Your task to perform on an android device: Search for custom wallets on Etsy. Image 0: 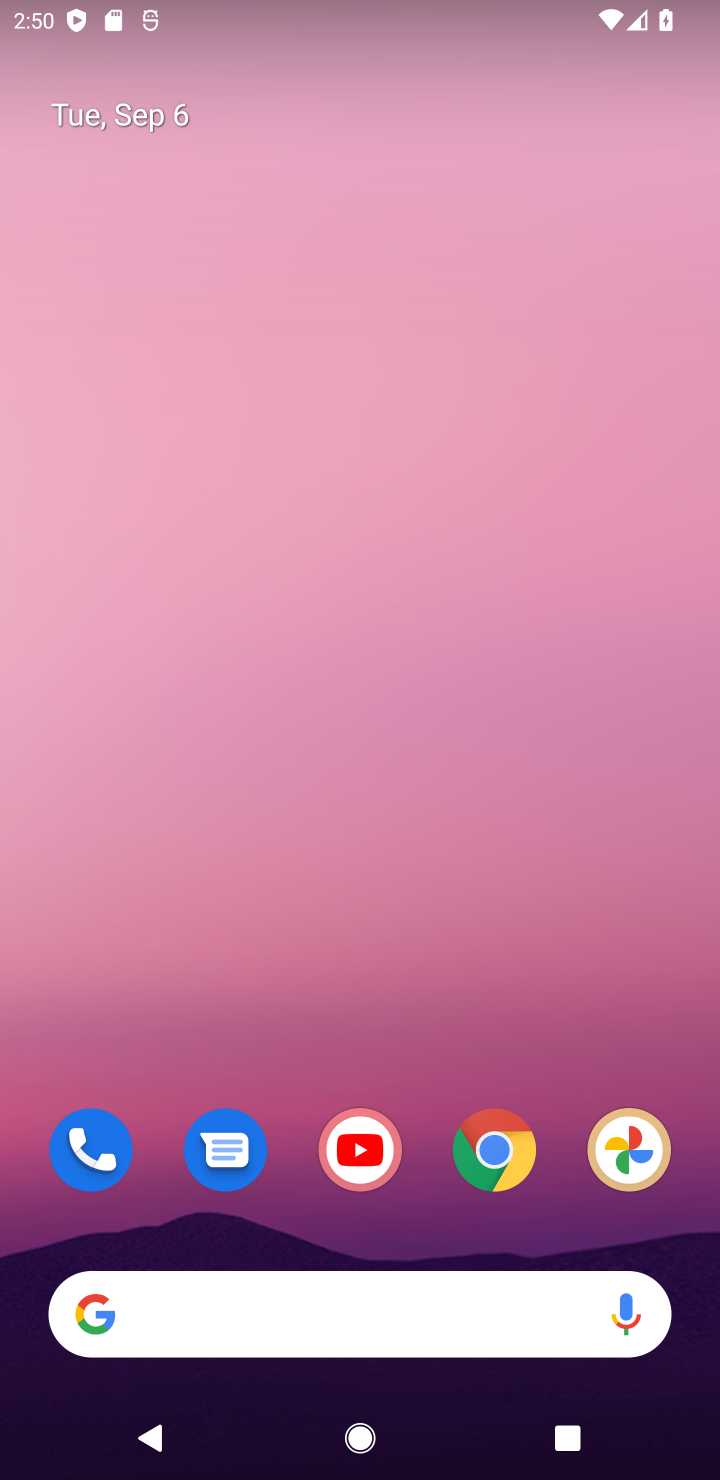
Step 0: click (497, 1156)
Your task to perform on an android device: Search for custom wallets on Etsy. Image 1: 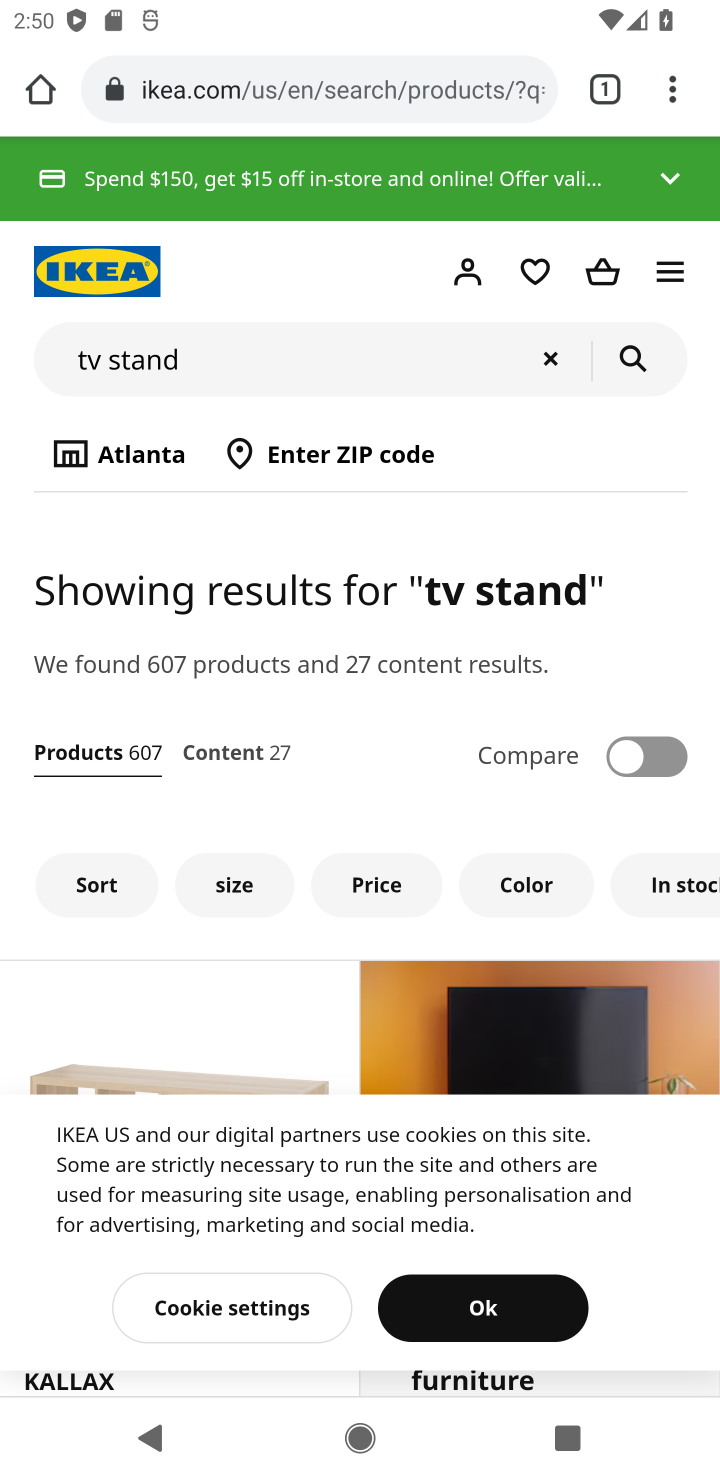
Step 1: click (255, 93)
Your task to perform on an android device: Search for custom wallets on Etsy. Image 2: 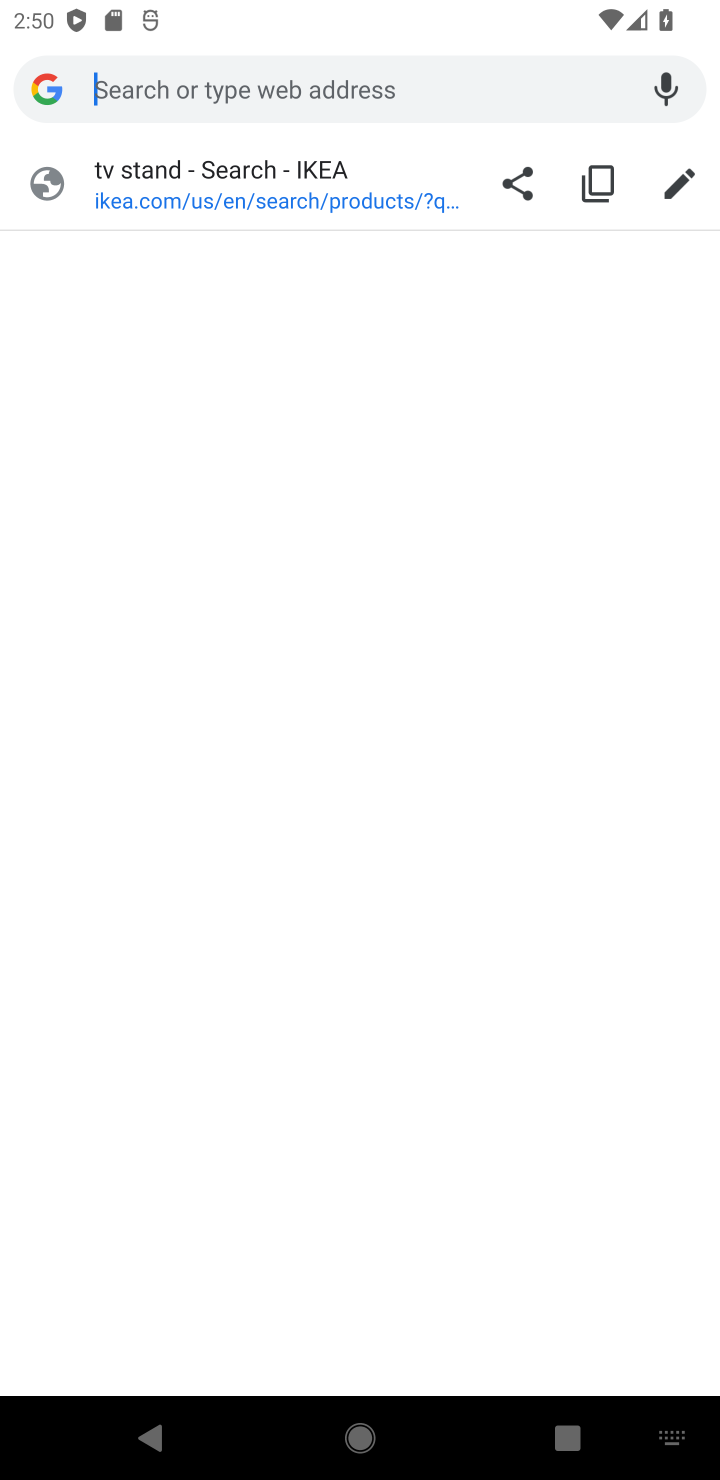
Step 2: type "etsy"
Your task to perform on an android device: Search for custom wallets on Etsy. Image 3: 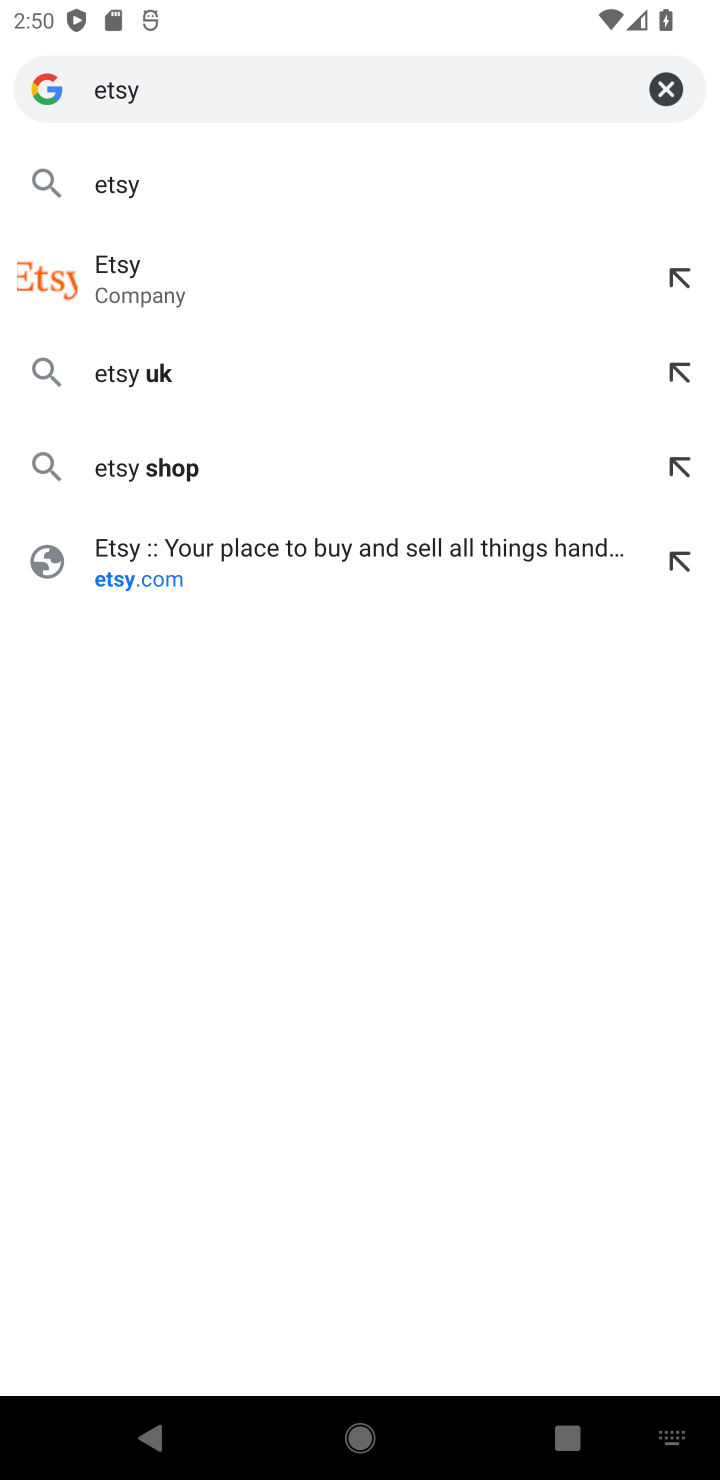
Step 3: click (105, 201)
Your task to perform on an android device: Search for custom wallets on Etsy. Image 4: 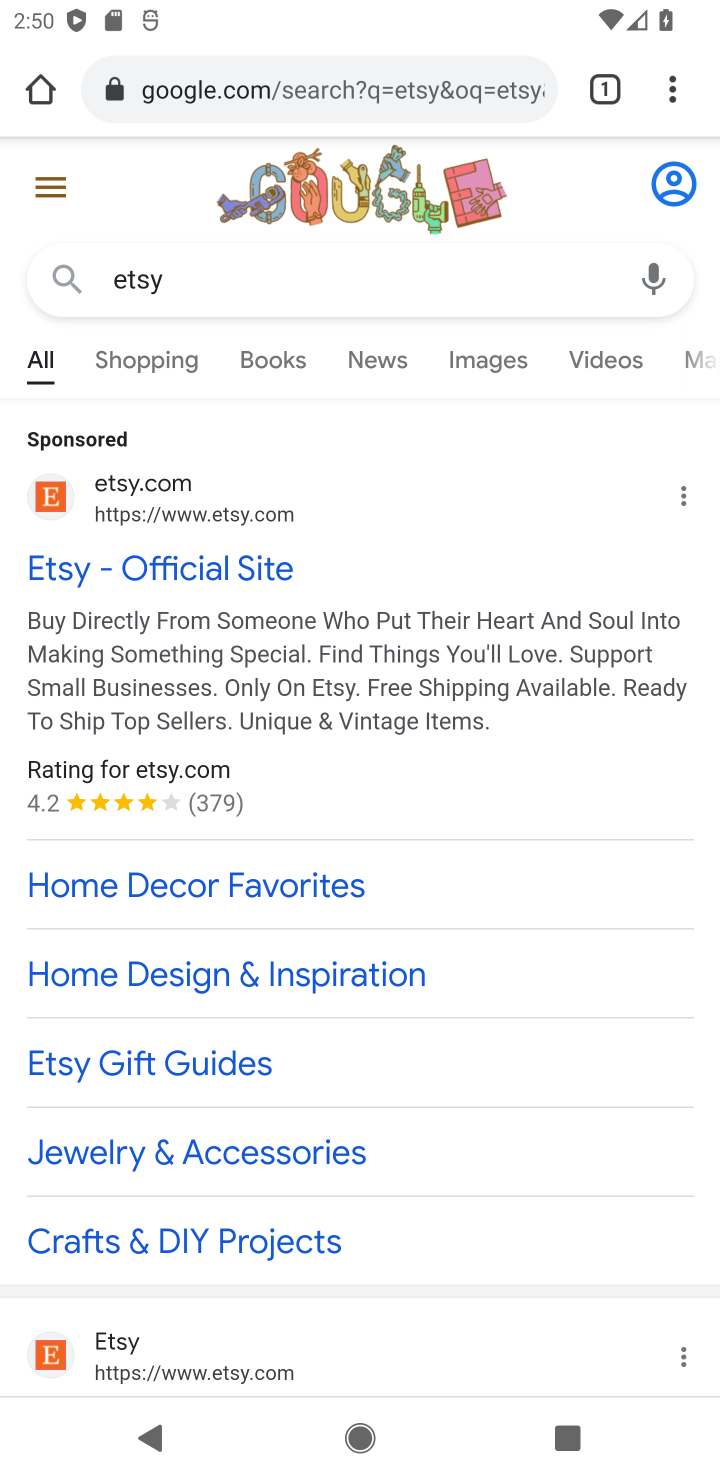
Step 4: click (155, 578)
Your task to perform on an android device: Search for custom wallets on Etsy. Image 5: 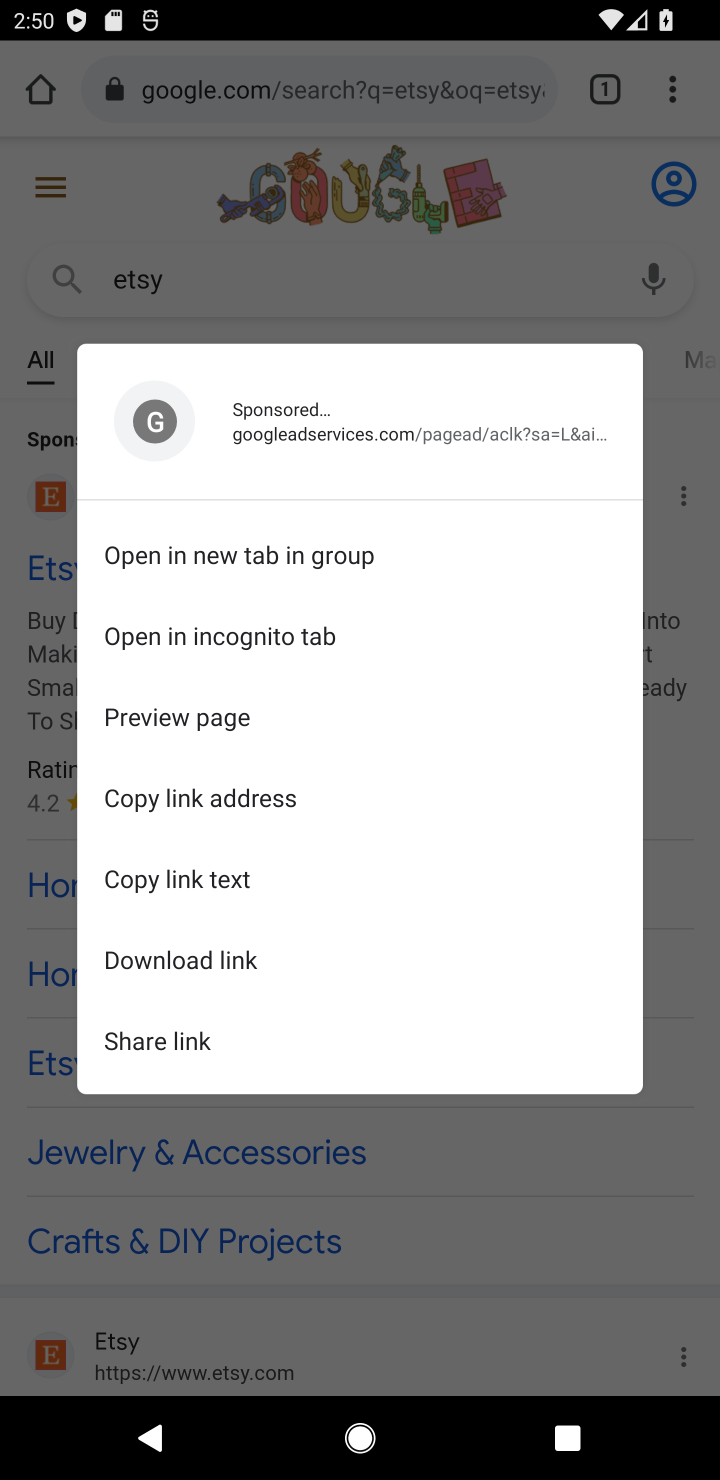
Step 5: click (40, 548)
Your task to perform on an android device: Search for custom wallets on Etsy. Image 6: 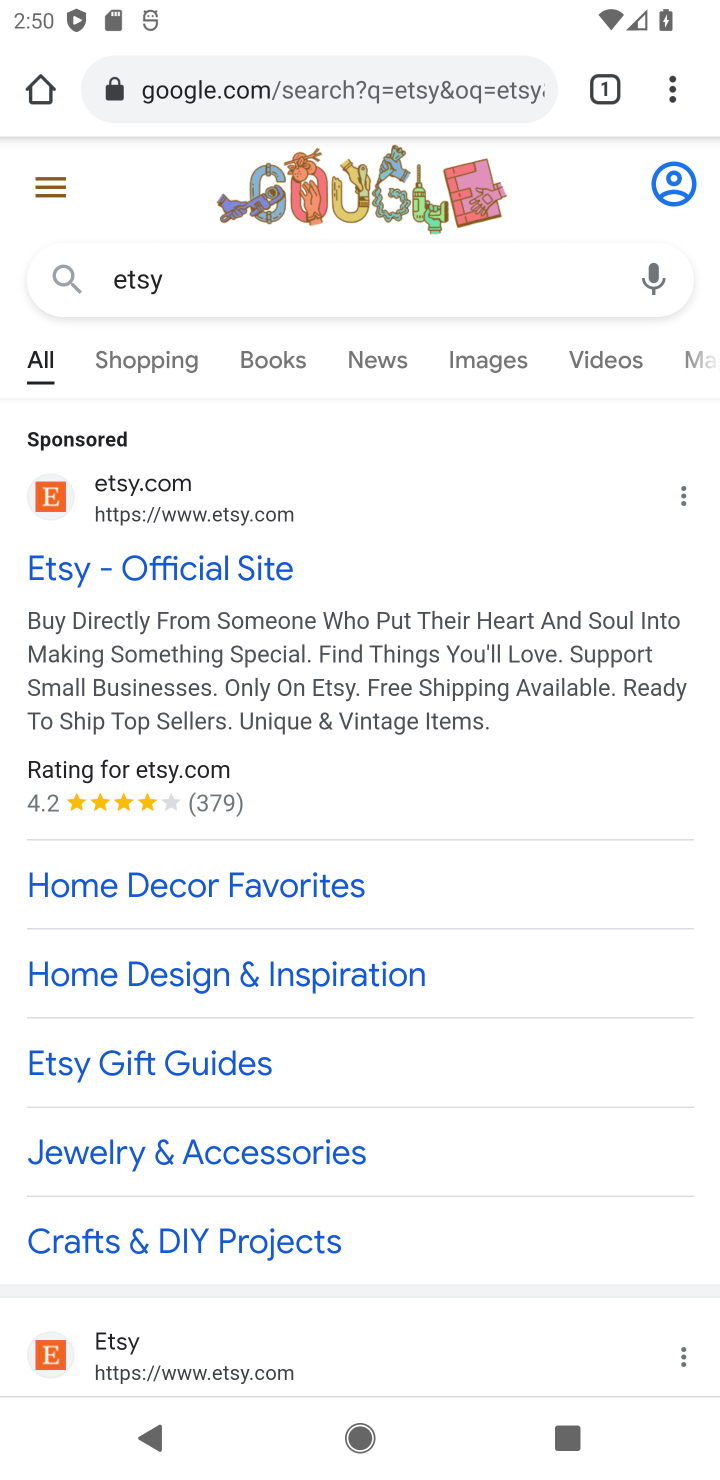
Step 6: click (206, 575)
Your task to perform on an android device: Search for custom wallets on Etsy. Image 7: 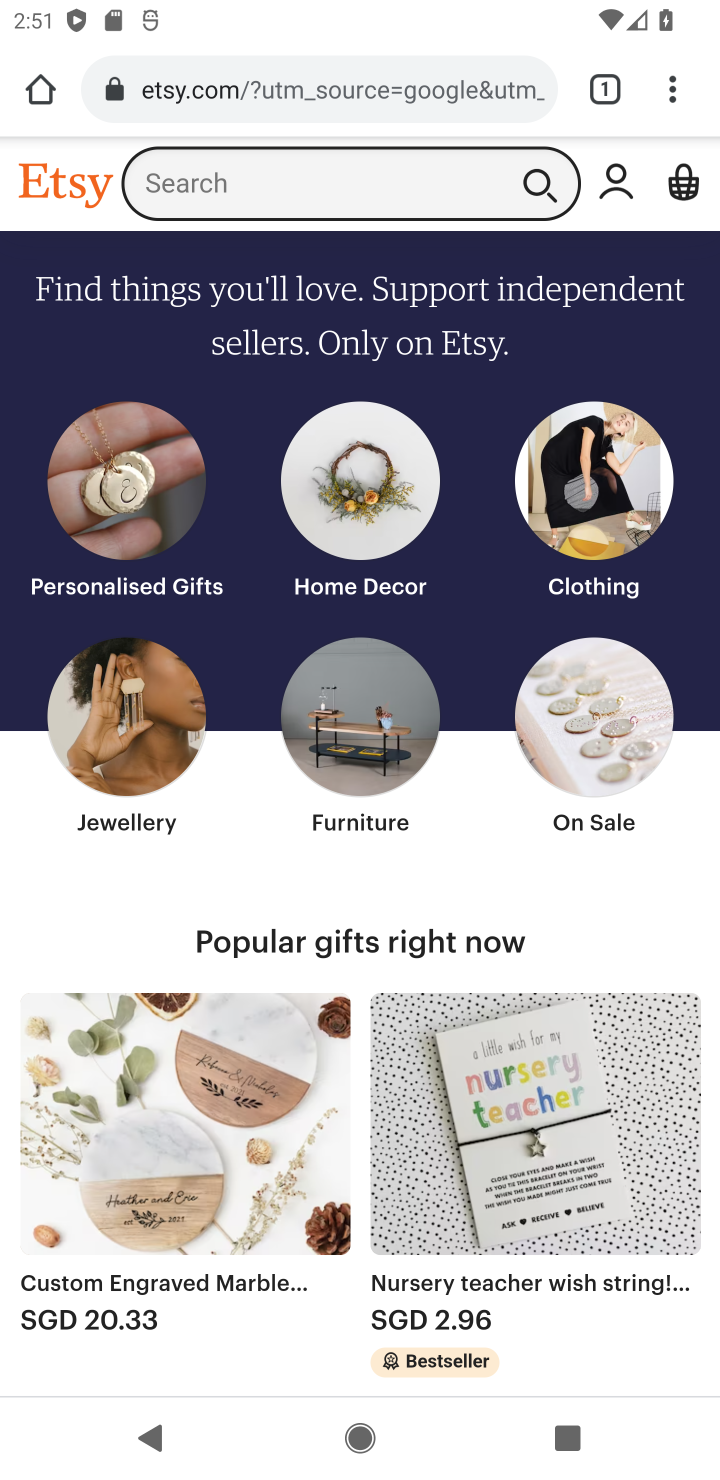
Step 7: click (234, 188)
Your task to perform on an android device: Search for custom wallets on Etsy. Image 8: 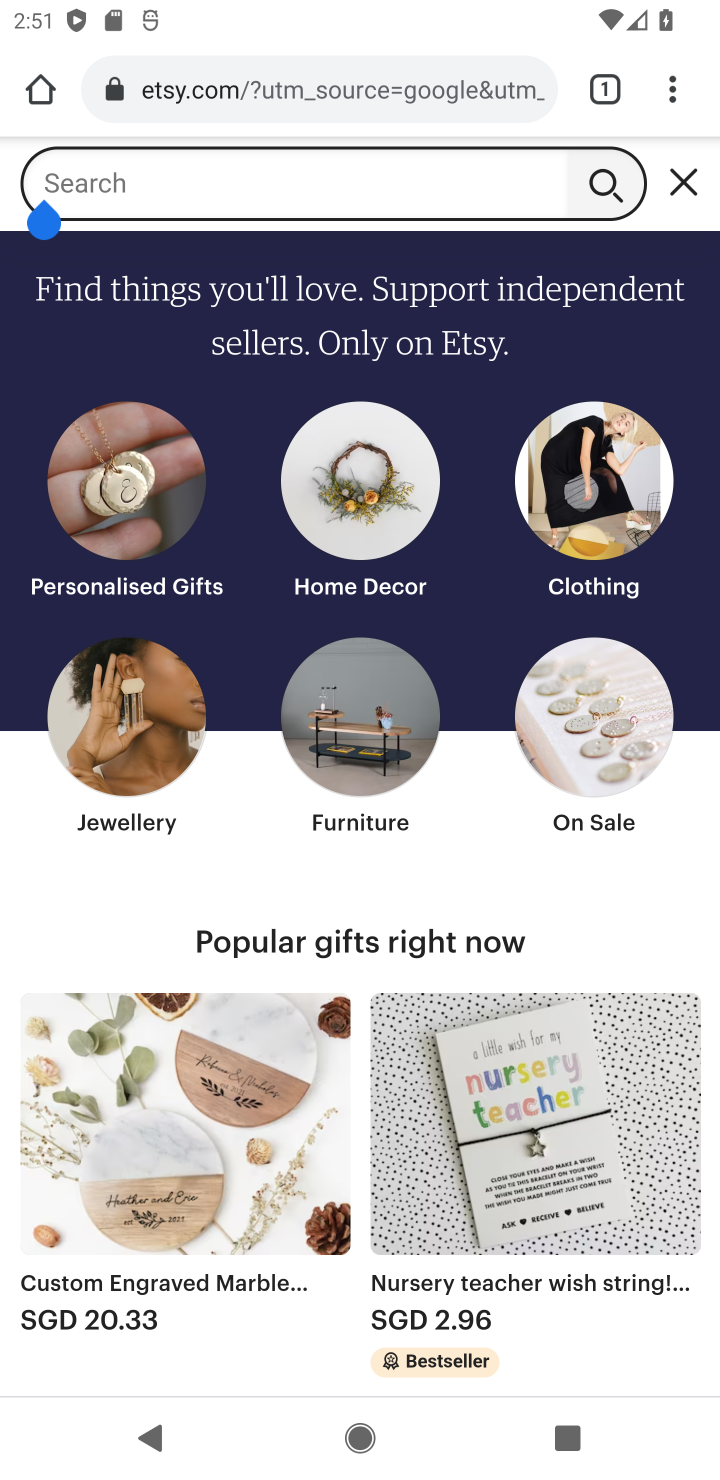
Step 8: type "custom wallets"
Your task to perform on an android device: Search for custom wallets on Etsy. Image 9: 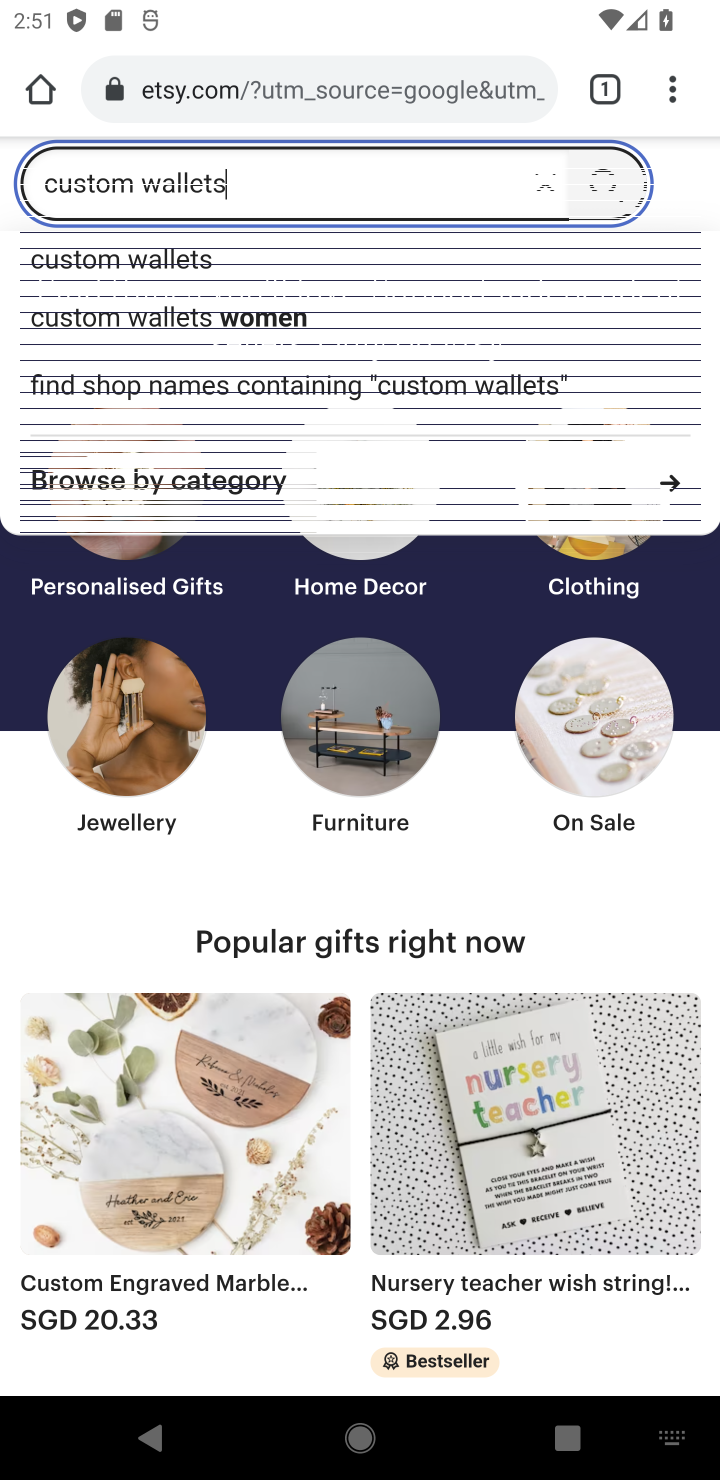
Step 9: click (106, 275)
Your task to perform on an android device: Search for custom wallets on Etsy. Image 10: 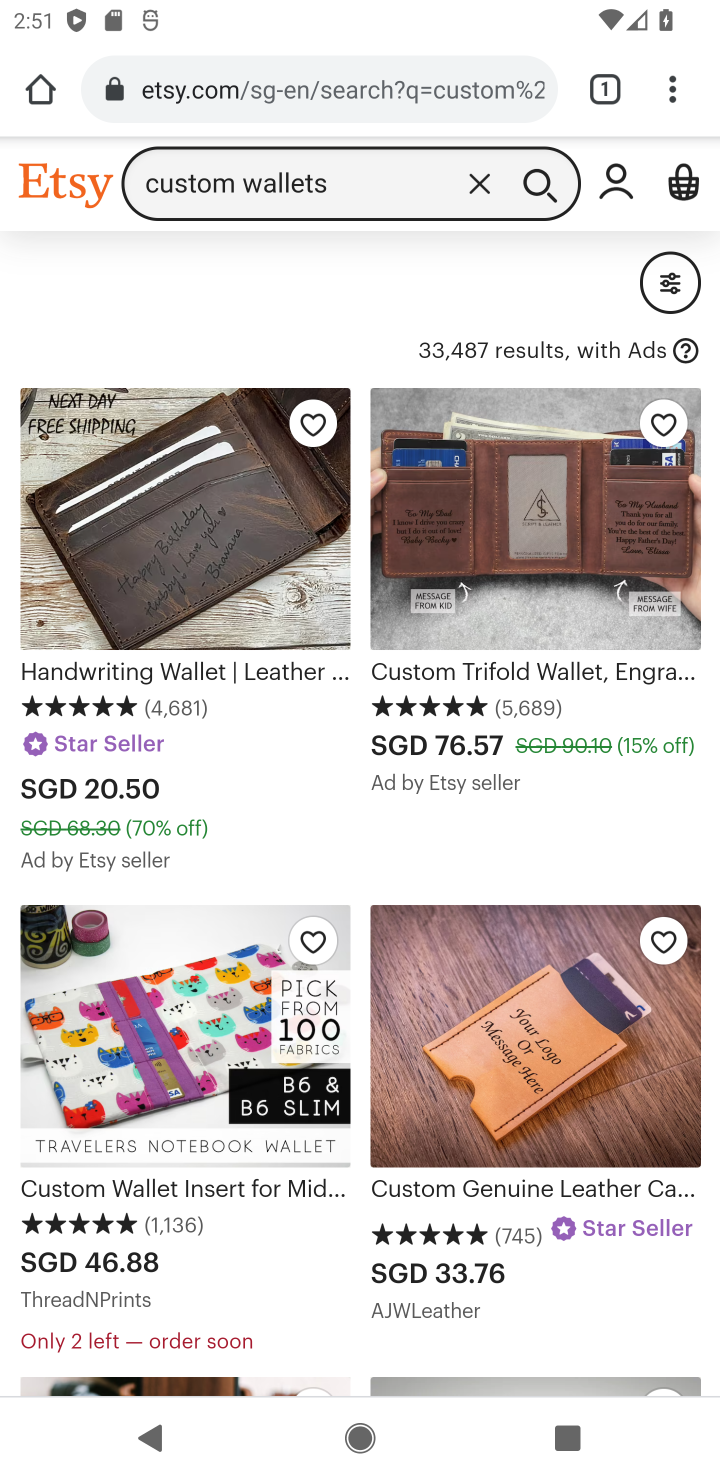
Step 10: task complete